Your task to perform on an android device: turn on showing notifications on the lock screen Image 0: 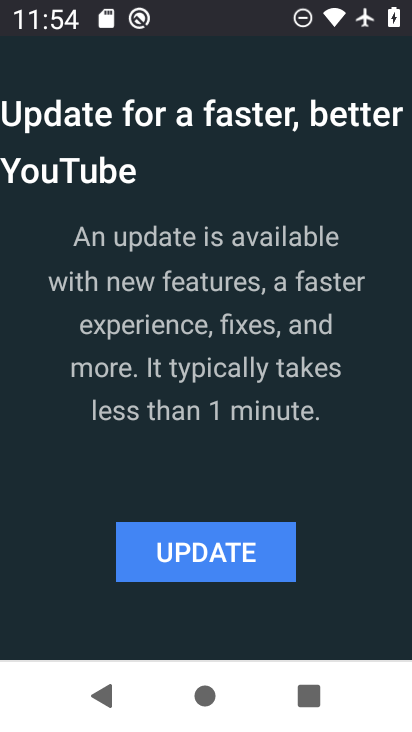
Step 0: press back button
Your task to perform on an android device: turn on showing notifications on the lock screen Image 1: 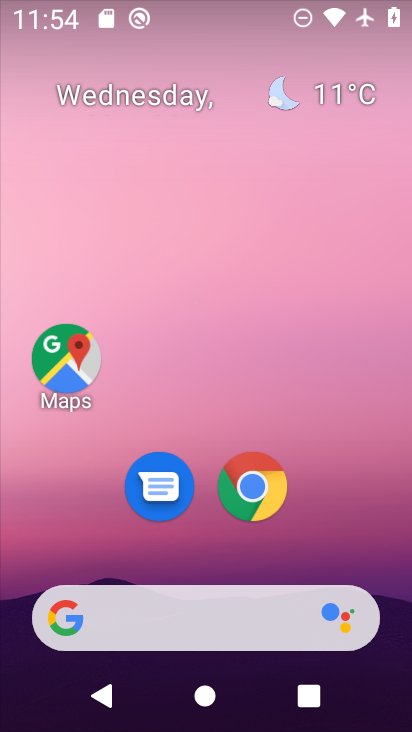
Step 1: drag from (362, 501) to (280, 9)
Your task to perform on an android device: turn on showing notifications on the lock screen Image 2: 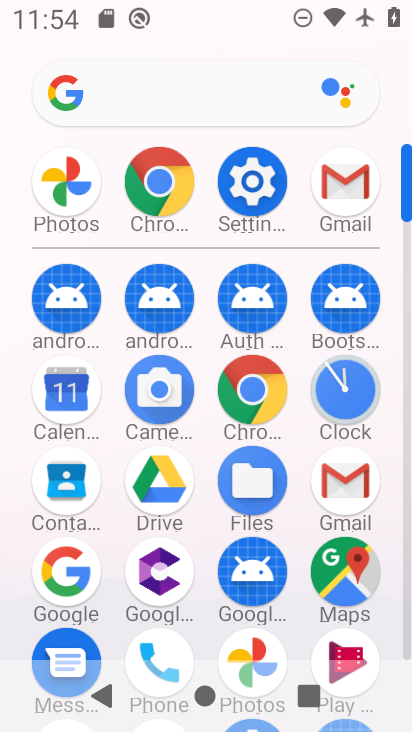
Step 2: click (251, 180)
Your task to perform on an android device: turn on showing notifications on the lock screen Image 3: 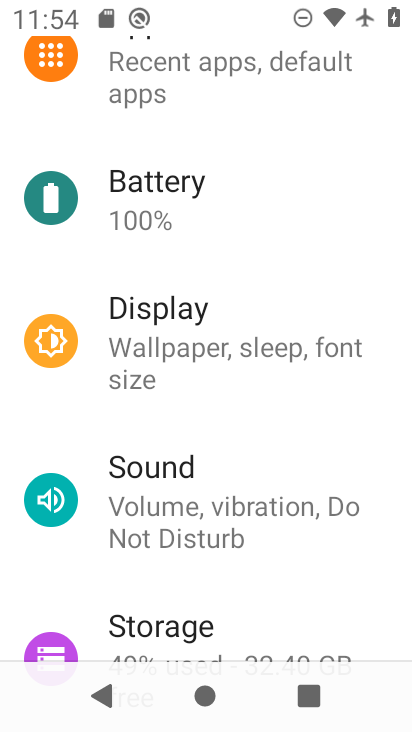
Step 3: drag from (242, 343) to (237, 620)
Your task to perform on an android device: turn on showing notifications on the lock screen Image 4: 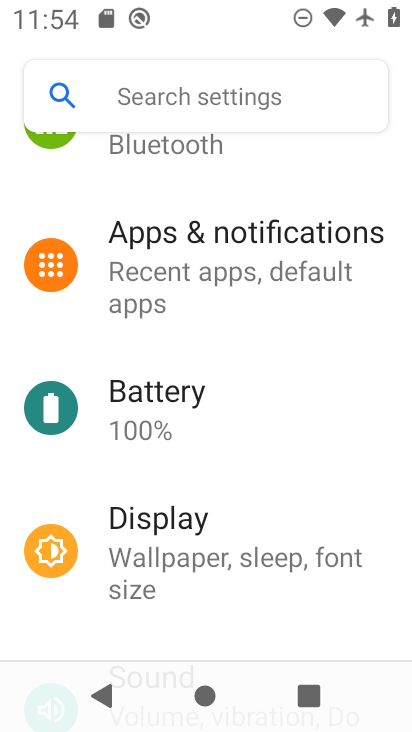
Step 4: click (250, 253)
Your task to perform on an android device: turn on showing notifications on the lock screen Image 5: 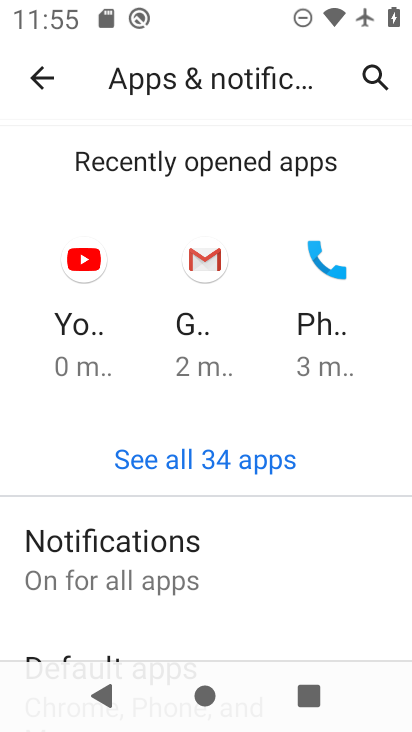
Step 5: drag from (246, 585) to (239, 188)
Your task to perform on an android device: turn on showing notifications on the lock screen Image 6: 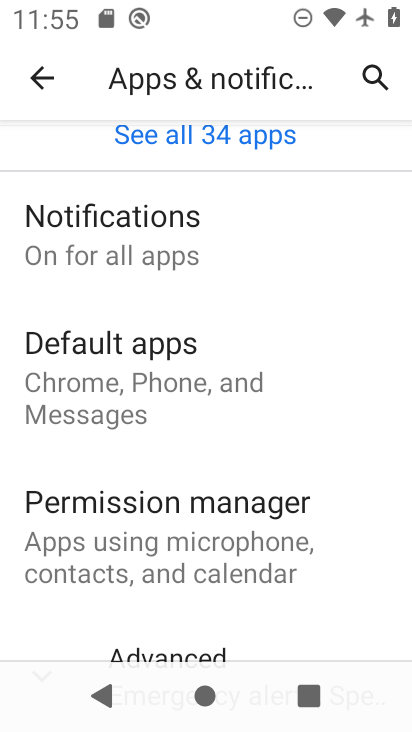
Step 6: drag from (230, 458) to (259, 177)
Your task to perform on an android device: turn on showing notifications on the lock screen Image 7: 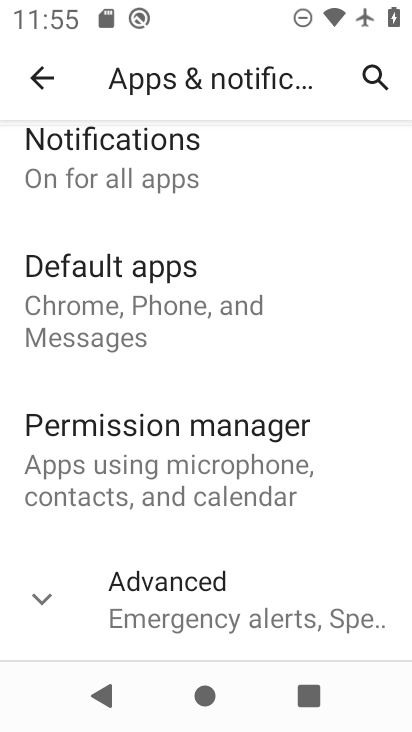
Step 7: click (209, 158)
Your task to perform on an android device: turn on showing notifications on the lock screen Image 8: 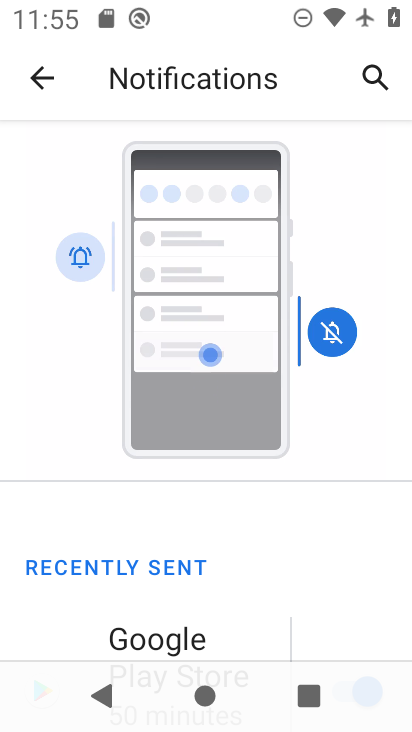
Step 8: drag from (187, 610) to (261, 135)
Your task to perform on an android device: turn on showing notifications on the lock screen Image 9: 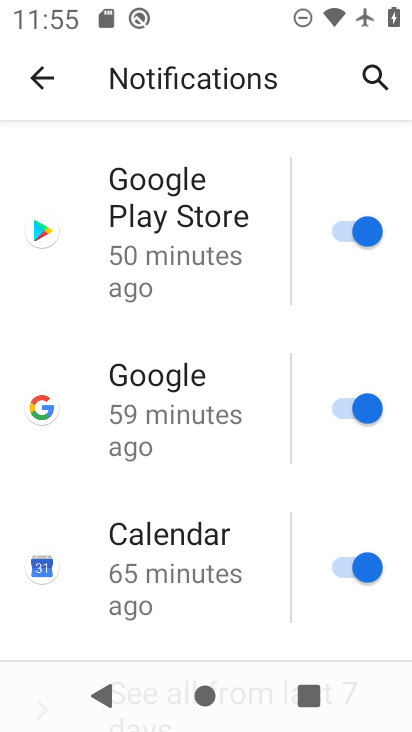
Step 9: drag from (195, 448) to (199, 138)
Your task to perform on an android device: turn on showing notifications on the lock screen Image 10: 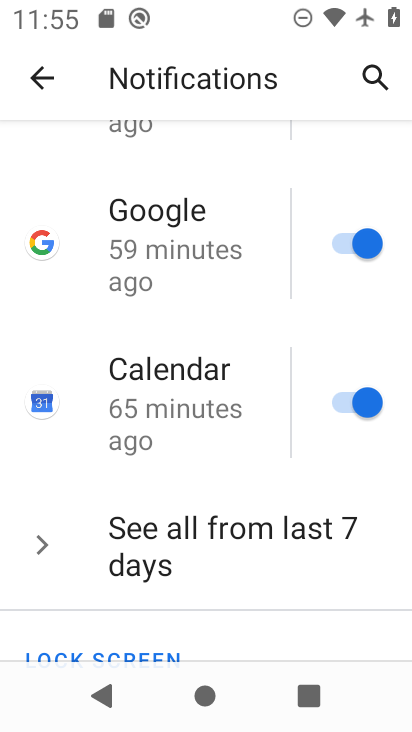
Step 10: drag from (177, 589) to (174, 178)
Your task to perform on an android device: turn on showing notifications on the lock screen Image 11: 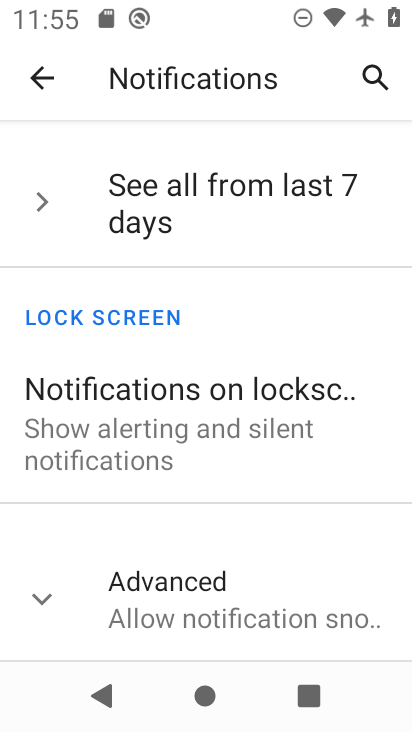
Step 11: click (193, 415)
Your task to perform on an android device: turn on showing notifications on the lock screen Image 12: 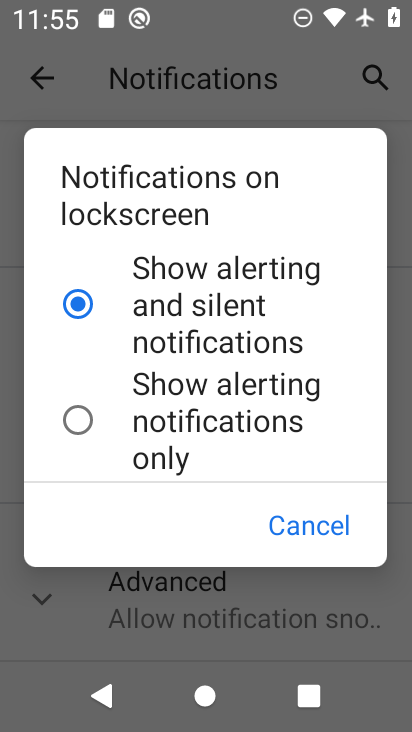
Step 12: click (175, 267)
Your task to perform on an android device: turn on showing notifications on the lock screen Image 13: 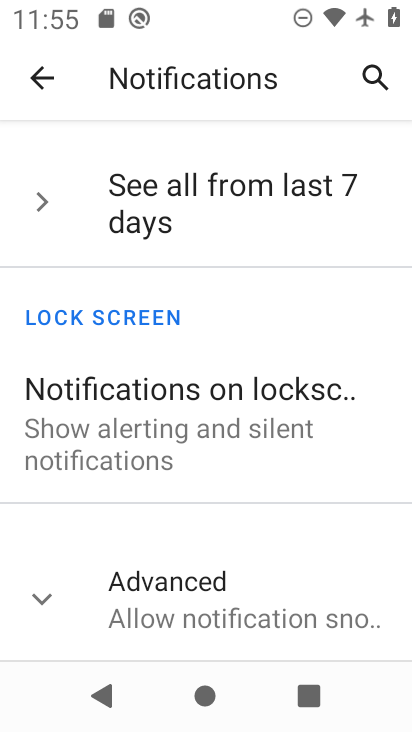
Step 13: click (40, 596)
Your task to perform on an android device: turn on showing notifications on the lock screen Image 14: 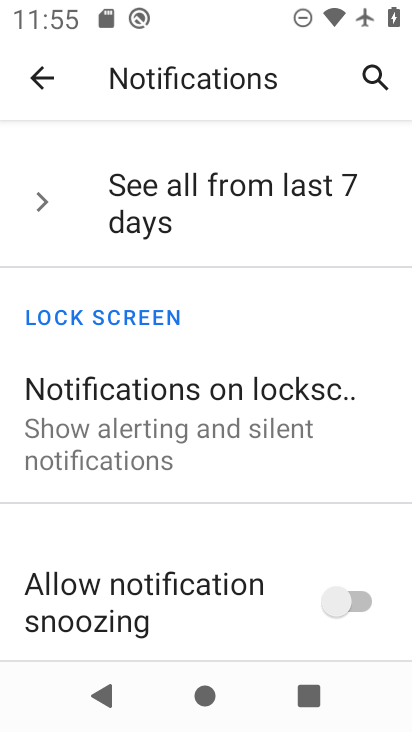
Step 14: task complete